Your task to perform on an android device: turn off improve location accuracy Image 0: 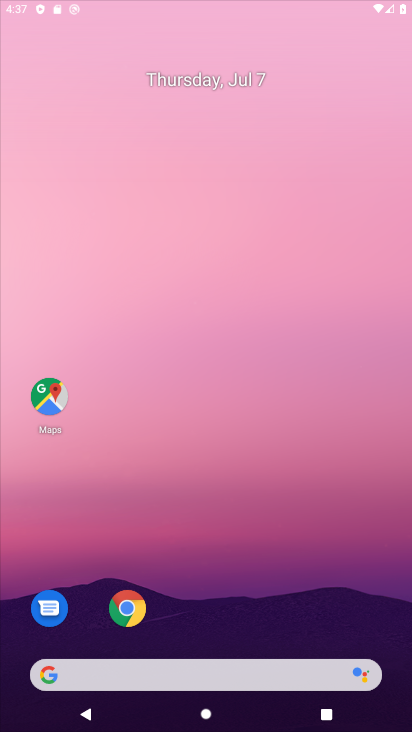
Step 0: drag from (193, 641) to (222, 125)
Your task to perform on an android device: turn off improve location accuracy Image 1: 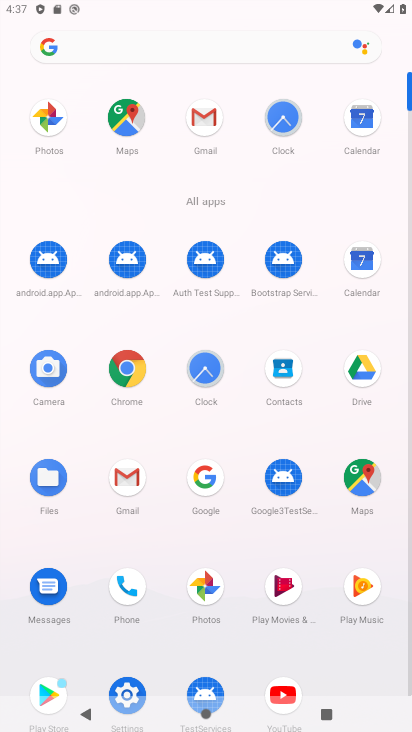
Step 1: click (131, 687)
Your task to perform on an android device: turn off improve location accuracy Image 2: 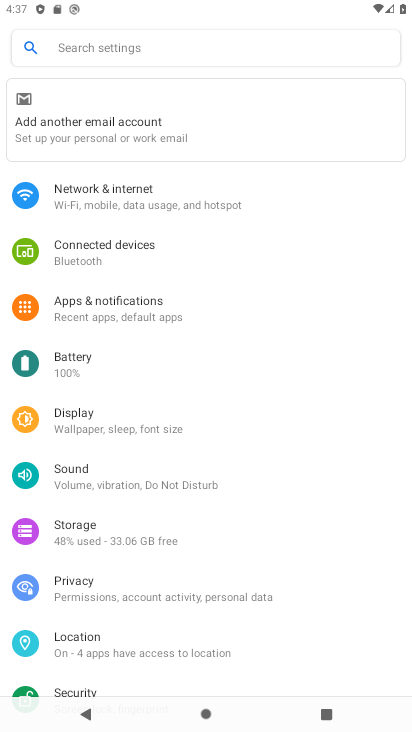
Step 2: click (108, 647)
Your task to perform on an android device: turn off improve location accuracy Image 3: 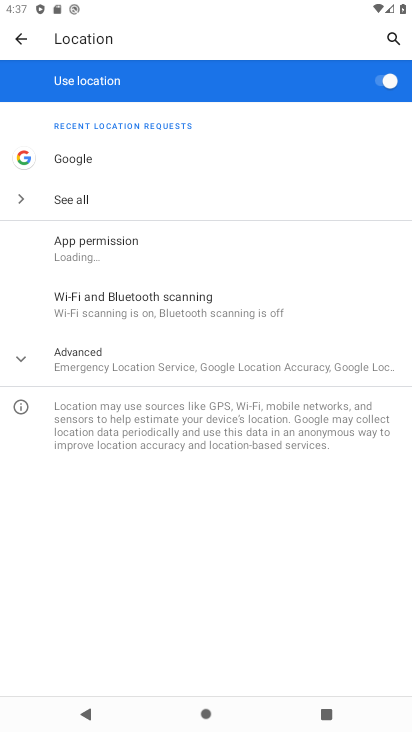
Step 3: click (150, 380)
Your task to perform on an android device: turn off improve location accuracy Image 4: 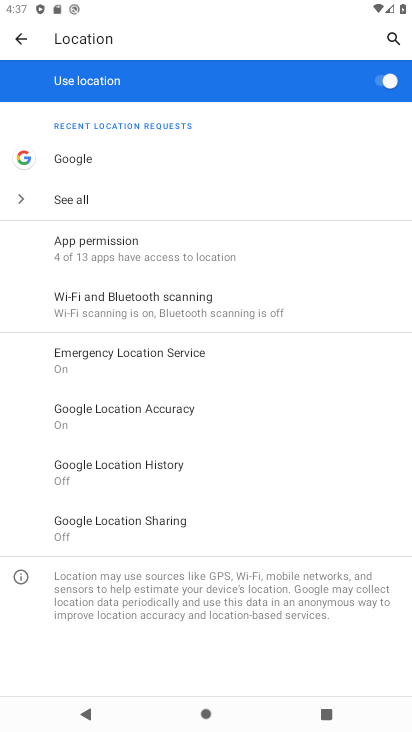
Step 4: click (207, 421)
Your task to perform on an android device: turn off improve location accuracy Image 5: 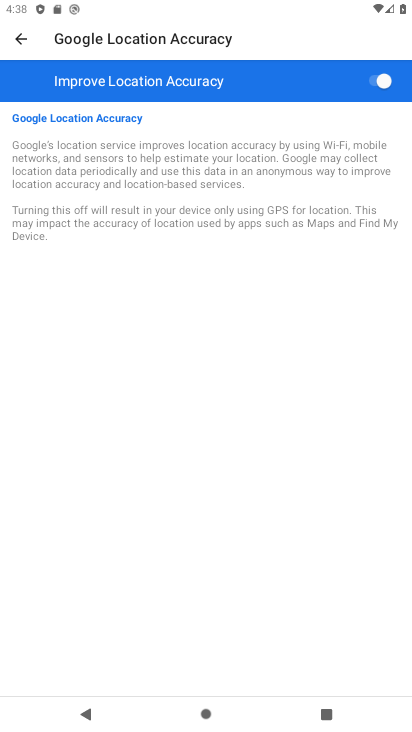
Step 5: click (378, 85)
Your task to perform on an android device: turn off improve location accuracy Image 6: 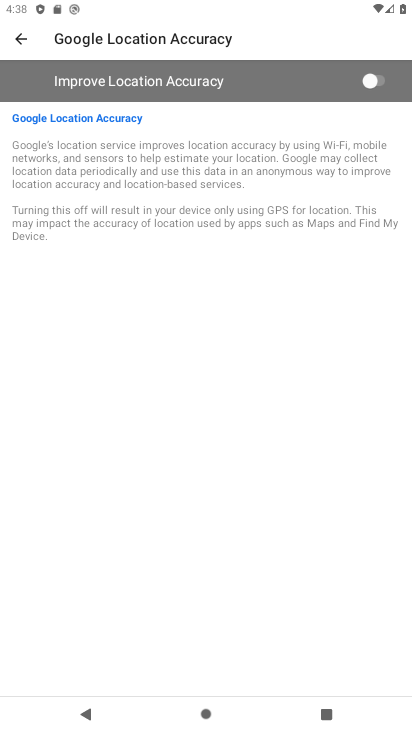
Step 6: task complete